Your task to perform on an android device: Go to CNN.com Image 0: 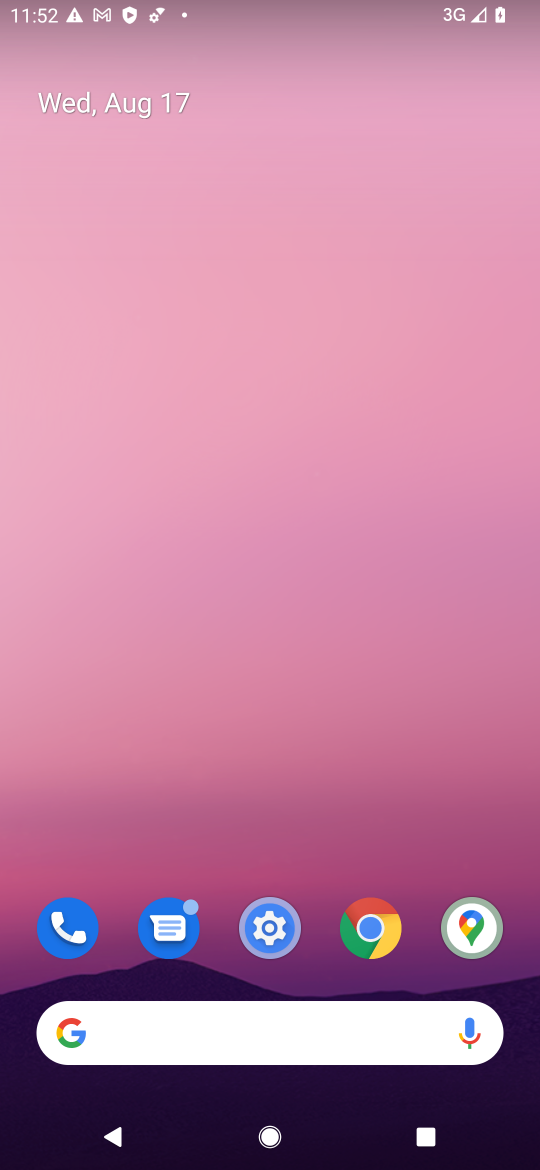
Step 0: click (381, 928)
Your task to perform on an android device: Go to CNN.com Image 1: 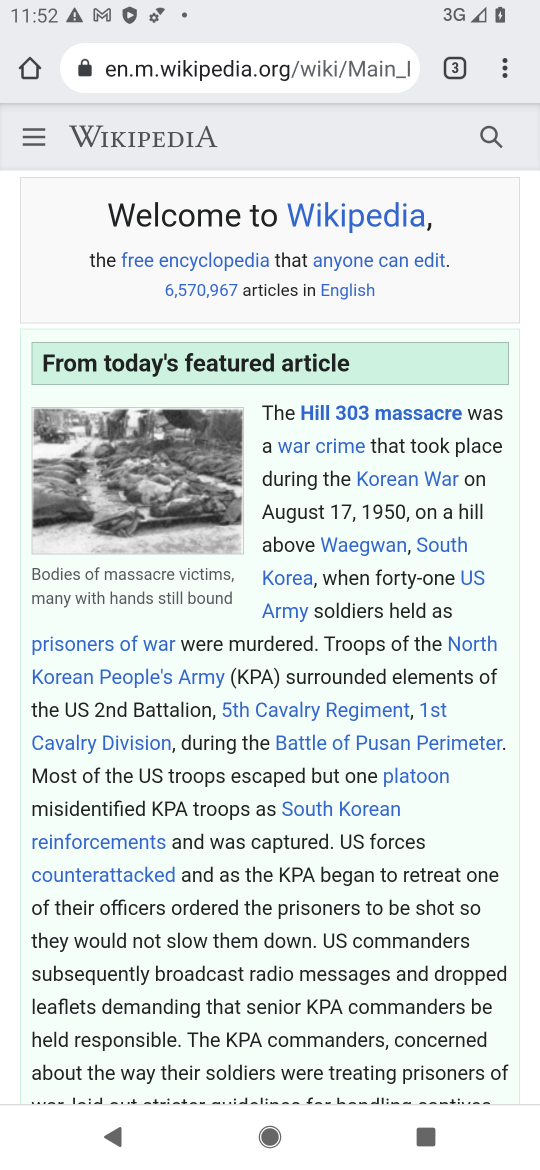
Step 1: click (460, 64)
Your task to perform on an android device: Go to CNN.com Image 2: 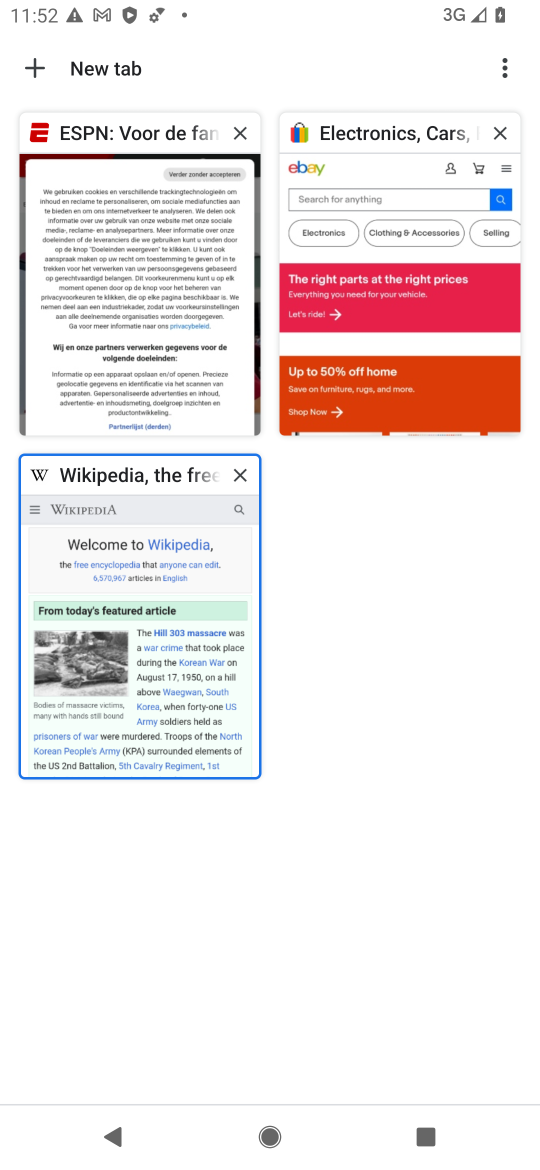
Step 2: click (40, 71)
Your task to perform on an android device: Go to CNN.com Image 3: 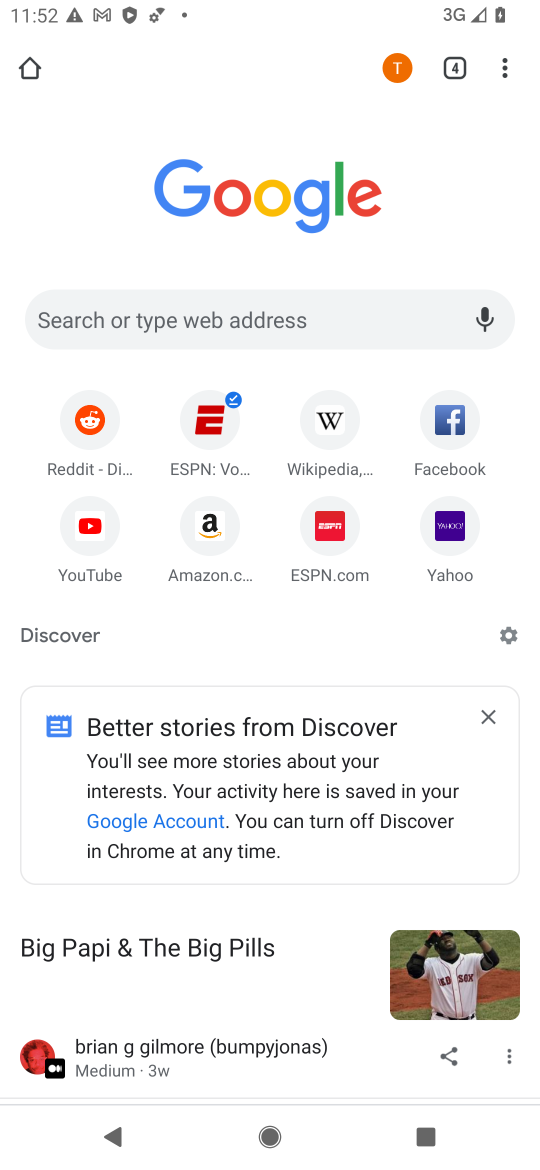
Step 3: click (177, 306)
Your task to perform on an android device: Go to CNN.com Image 4: 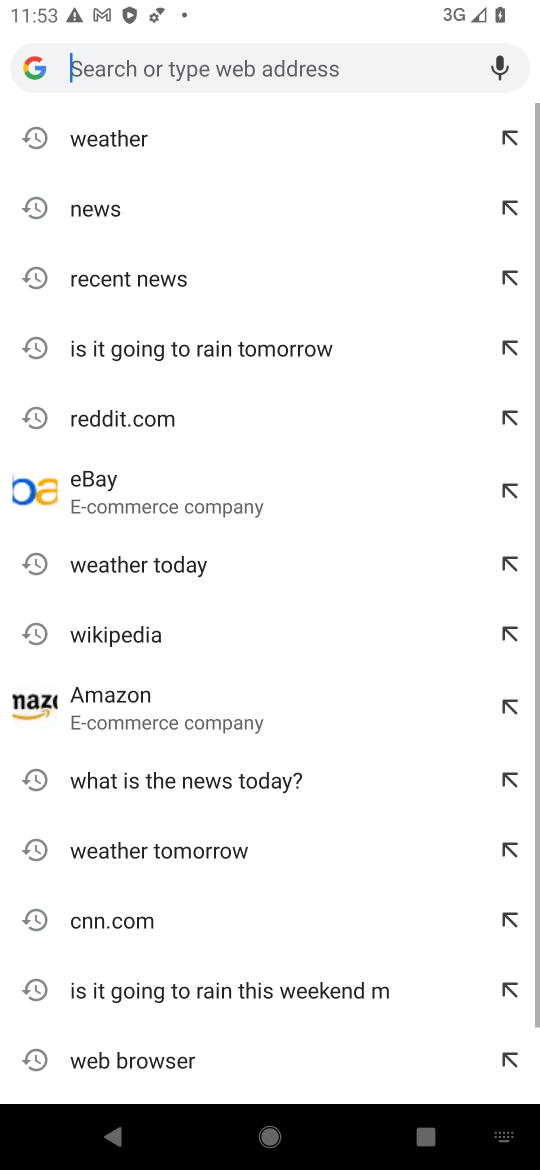
Step 4: type "CNN.com"
Your task to perform on an android device: Go to CNN.com Image 5: 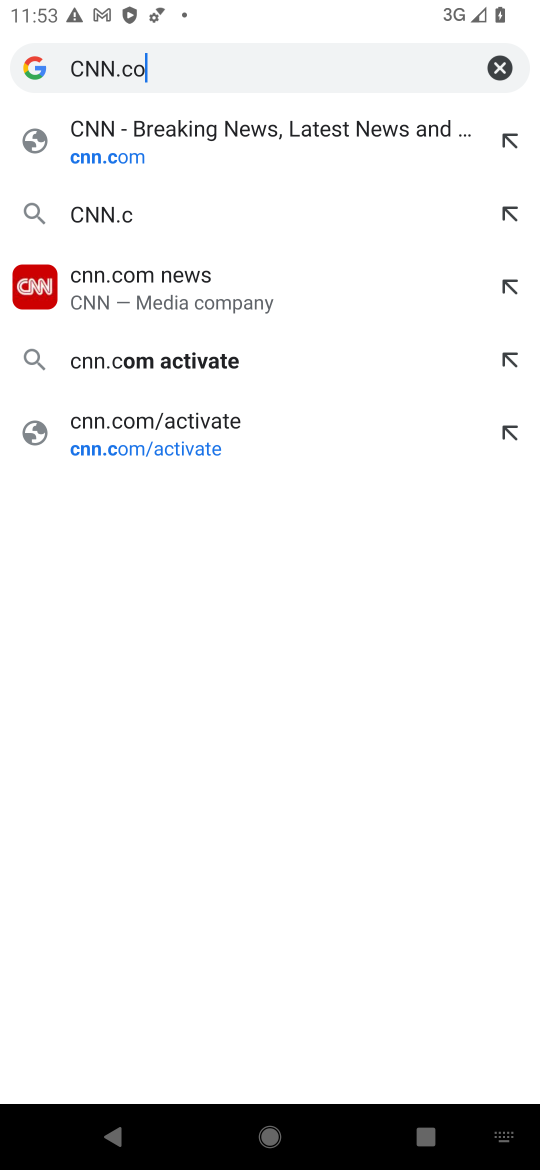
Step 5: type ""
Your task to perform on an android device: Go to CNN.com Image 6: 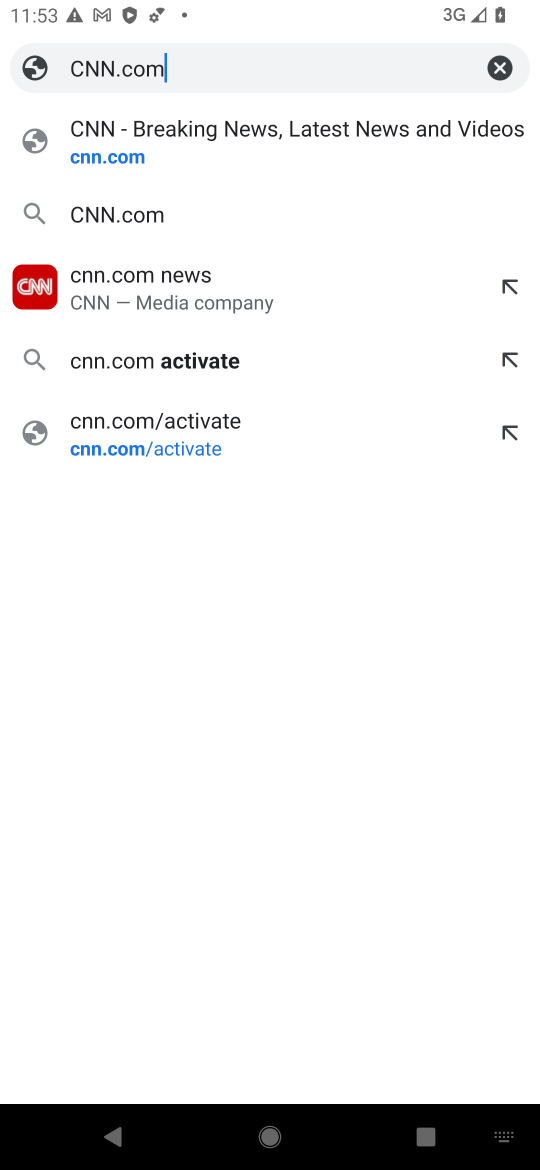
Step 6: click (171, 298)
Your task to perform on an android device: Go to CNN.com Image 7: 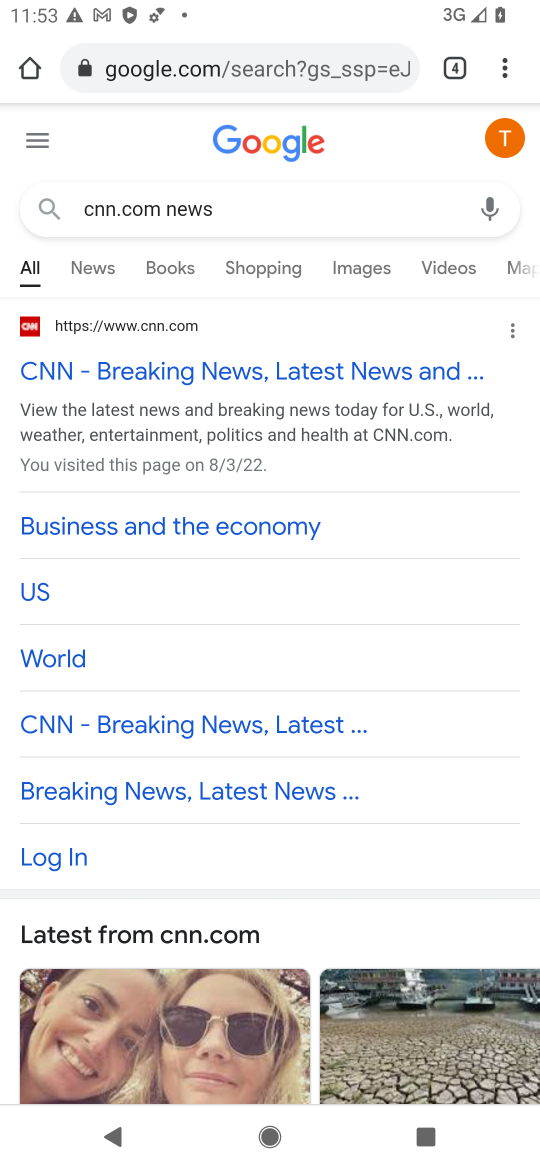
Step 7: click (142, 378)
Your task to perform on an android device: Go to CNN.com Image 8: 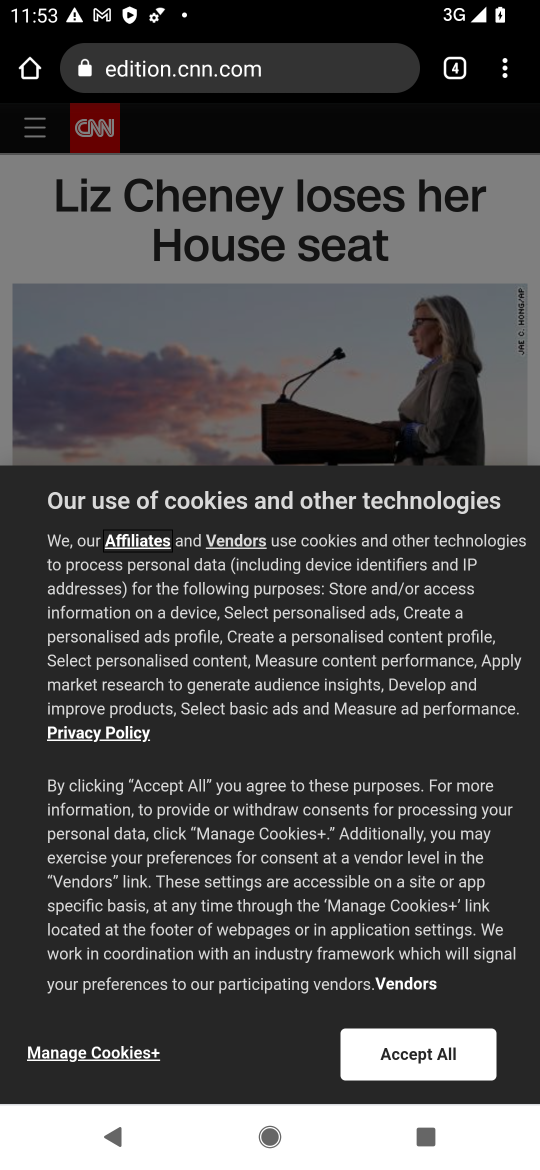
Step 8: task complete